Your task to perform on an android device: turn off priority inbox in the gmail app Image 0: 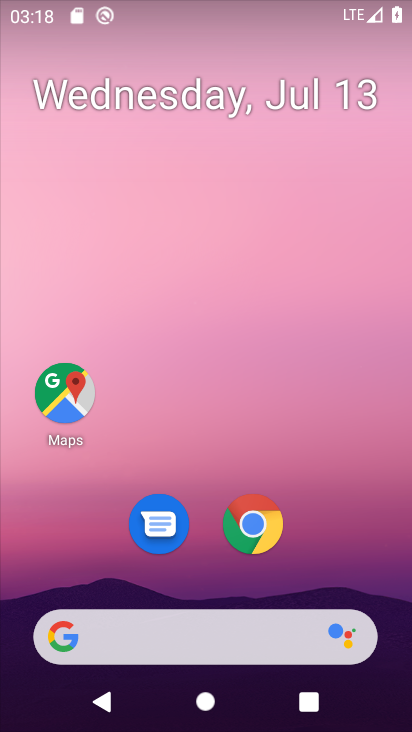
Step 0: drag from (342, 560) to (330, 56)
Your task to perform on an android device: turn off priority inbox in the gmail app Image 1: 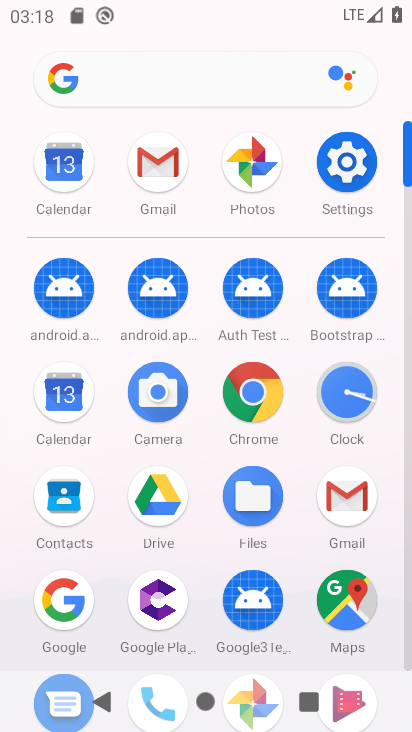
Step 1: click (157, 185)
Your task to perform on an android device: turn off priority inbox in the gmail app Image 2: 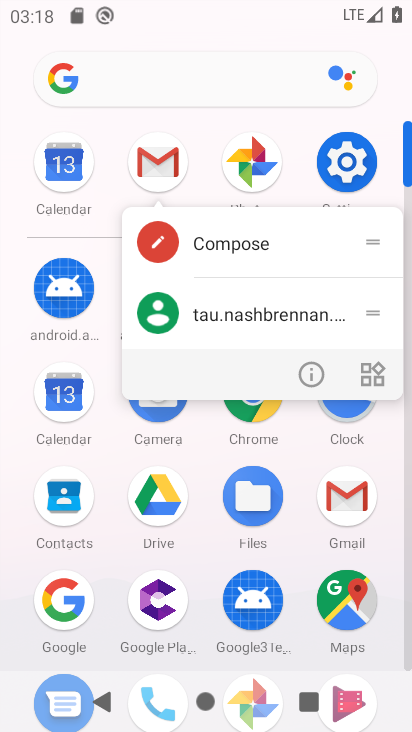
Step 2: click (158, 175)
Your task to perform on an android device: turn off priority inbox in the gmail app Image 3: 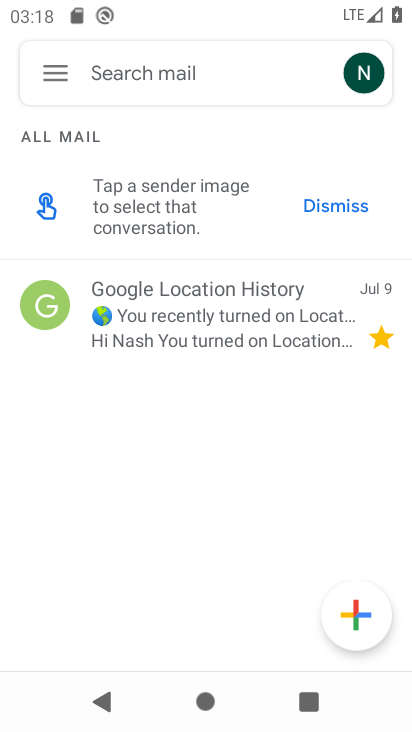
Step 3: click (59, 71)
Your task to perform on an android device: turn off priority inbox in the gmail app Image 4: 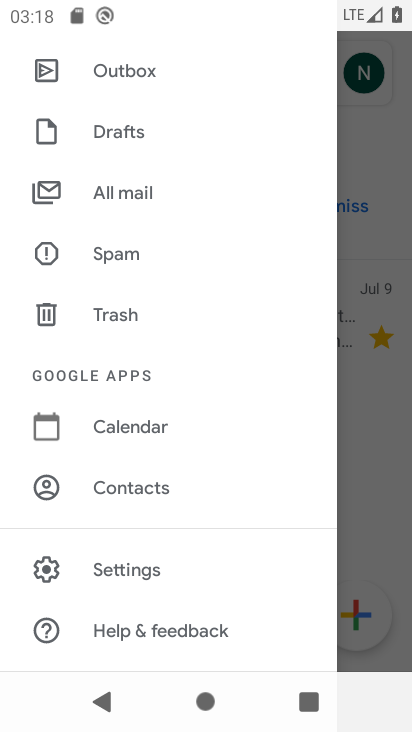
Step 4: click (150, 577)
Your task to perform on an android device: turn off priority inbox in the gmail app Image 5: 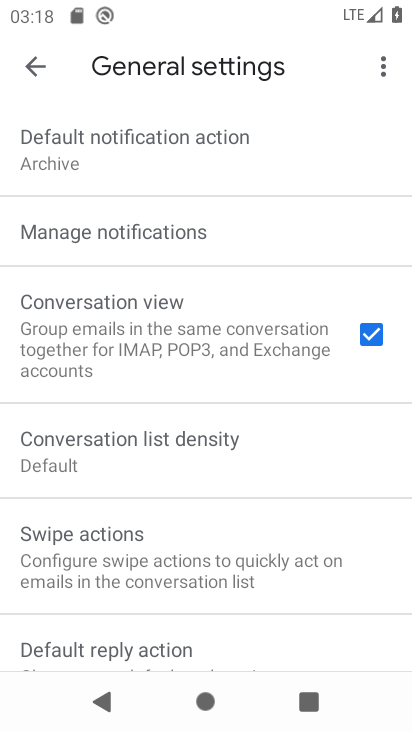
Step 5: click (35, 58)
Your task to perform on an android device: turn off priority inbox in the gmail app Image 6: 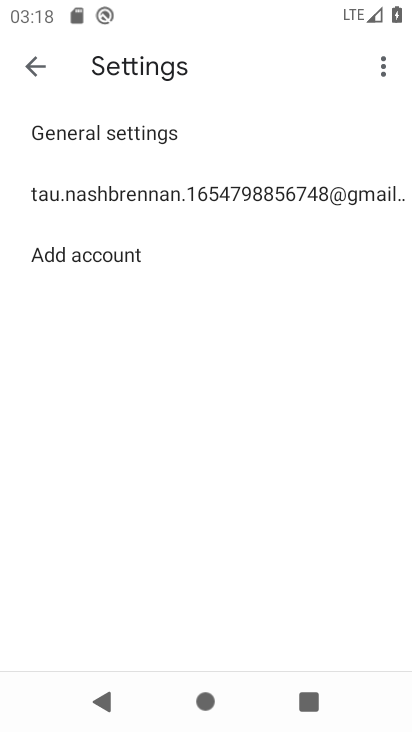
Step 6: click (113, 192)
Your task to perform on an android device: turn off priority inbox in the gmail app Image 7: 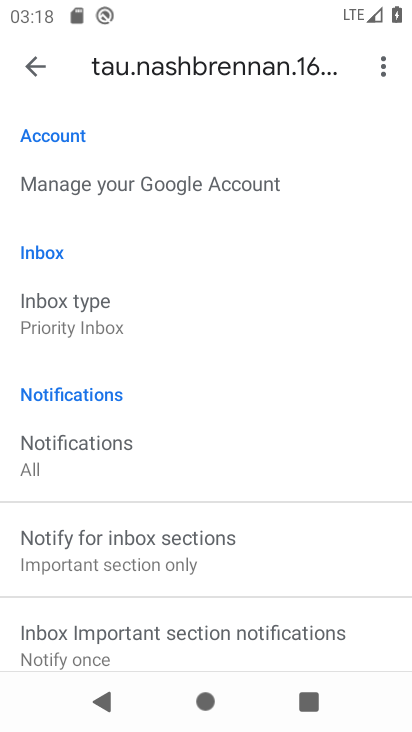
Step 7: click (110, 319)
Your task to perform on an android device: turn off priority inbox in the gmail app Image 8: 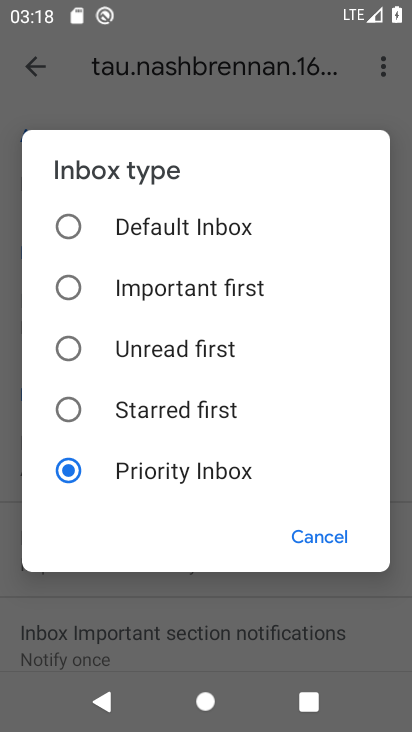
Step 8: click (69, 221)
Your task to perform on an android device: turn off priority inbox in the gmail app Image 9: 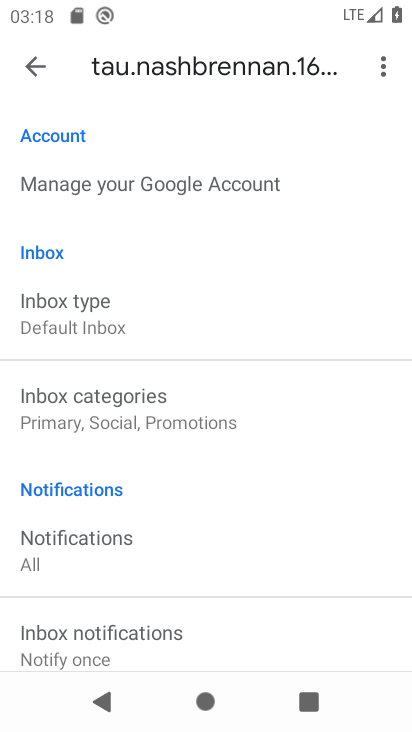
Step 9: task complete